Your task to perform on an android device: see creations saved in the google photos Image 0: 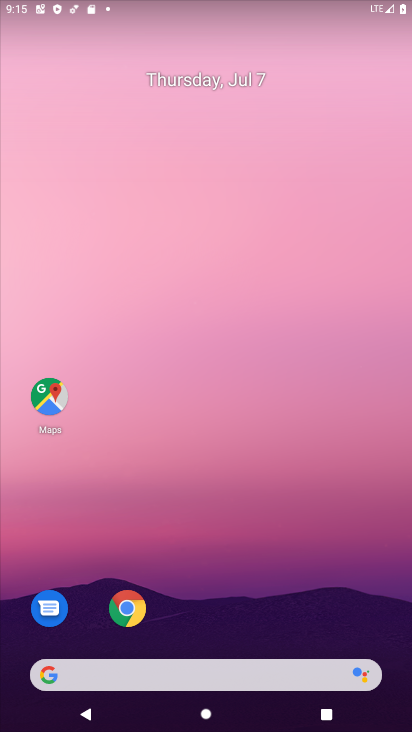
Step 0: drag from (225, 625) to (271, 113)
Your task to perform on an android device: see creations saved in the google photos Image 1: 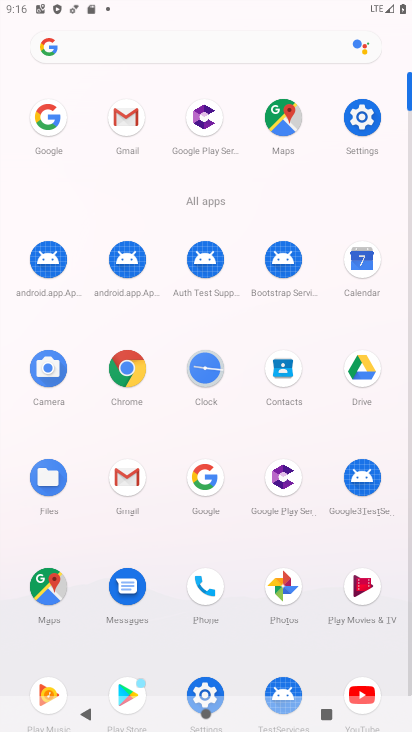
Step 1: click (285, 588)
Your task to perform on an android device: see creations saved in the google photos Image 2: 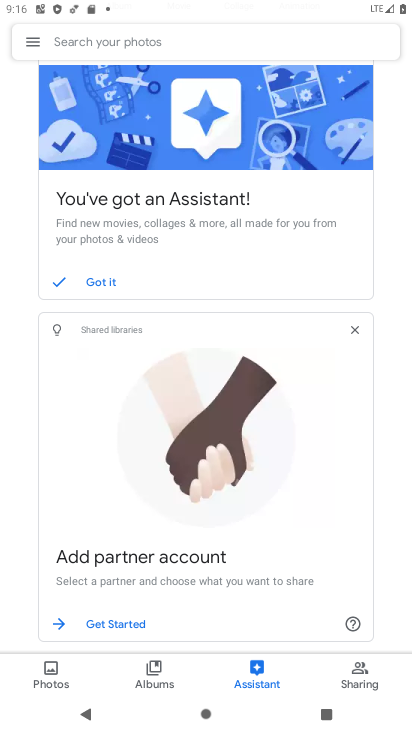
Step 2: click (152, 42)
Your task to perform on an android device: see creations saved in the google photos Image 3: 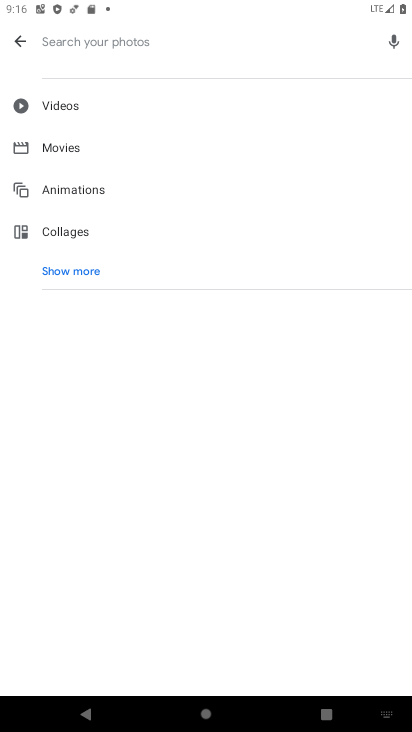
Step 3: click (60, 278)
Your task to perform on an android device: see creations saved in the google photos Image 4: 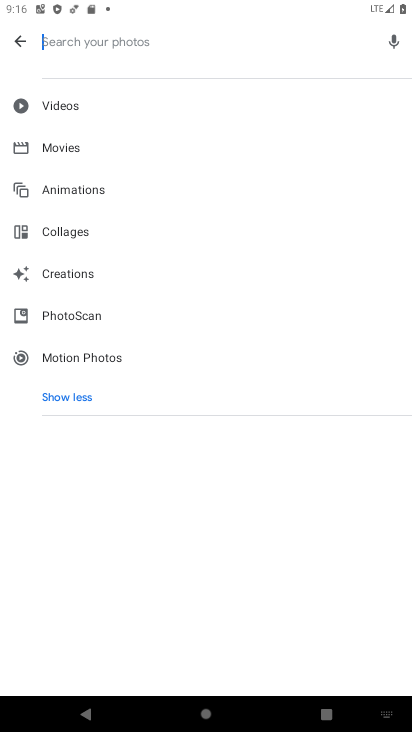
Step 4: click (53, 273)
Your task to perform on an android device: see creations saved in the google photos Image 5: 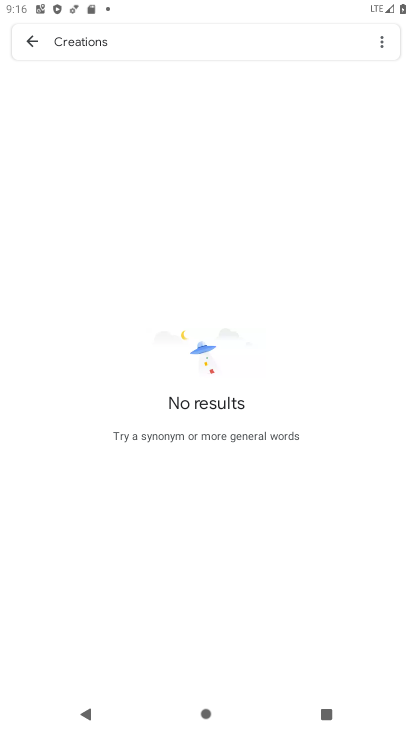
Step 5: task complete